Your task to perform on an android device: open the mobile data screen to see how much data has been used Image 0: 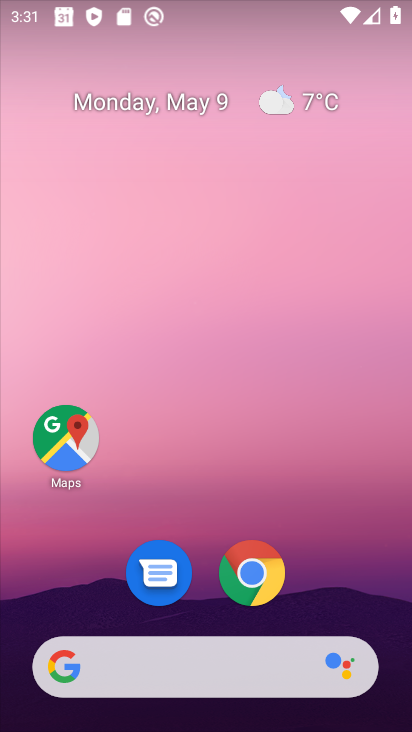
Step 0: drag from (354, 612) to (354, 4)
Your task to perform on an android device: open the mobile data screen to see how much data has been used Image 1: 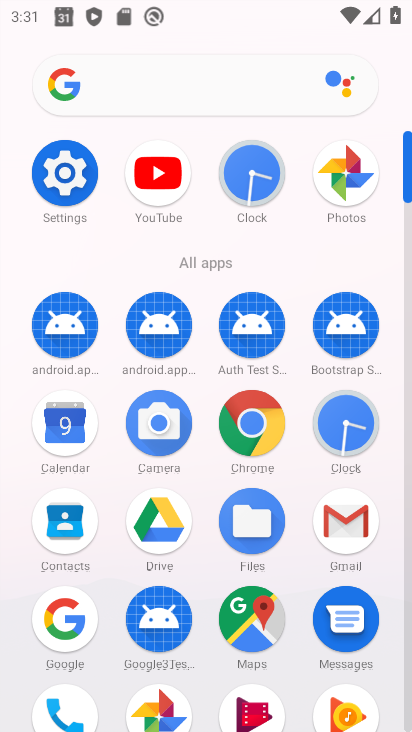
Step 1: click (59, 176)
Your task to perform on an android device: open the mobile data screen to see how much data has been used Image 2: 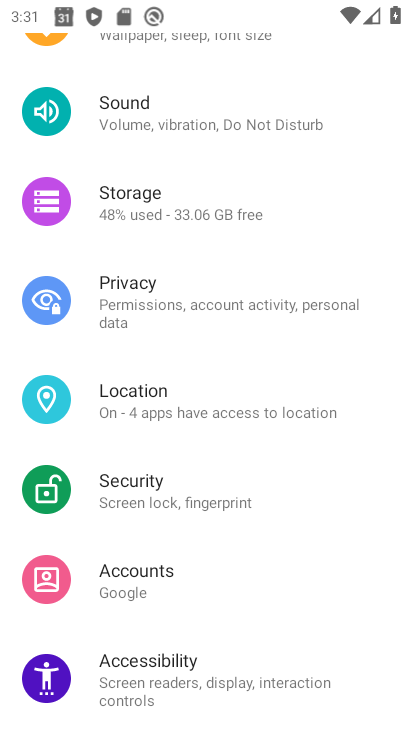
Step 2: drag from (387, 128) to (394, 629)
Your task to perform on an android device: open the mobile data screen to see how much data has been used Image 3: 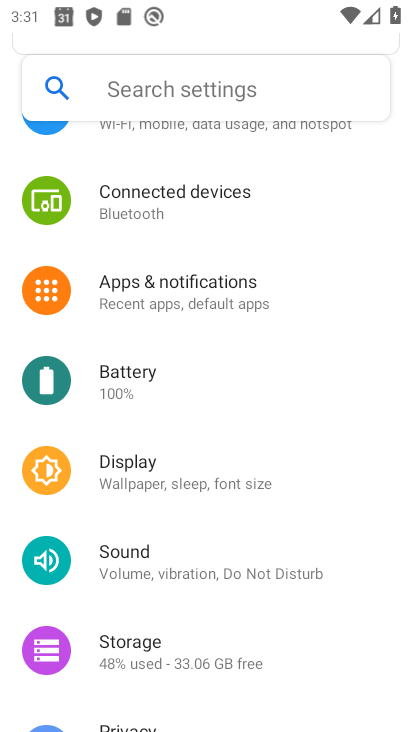
Step 3: drag from (342, 253) to (346, 583)
Your task to perform on an android device: open the mobile data screen to see how much data has been used Image 4: 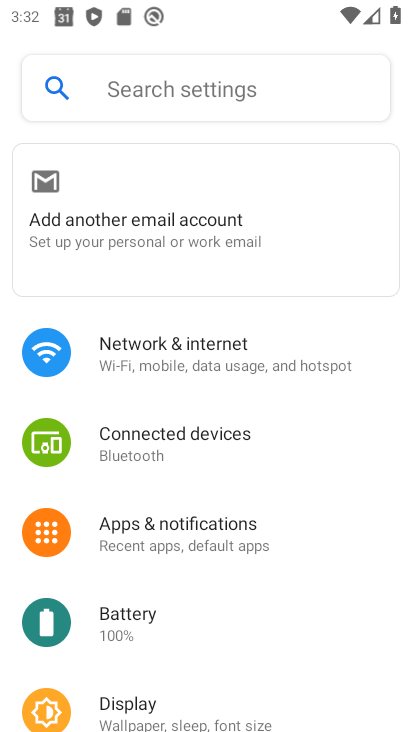
Step 4: click (166, 360)
Your task to perform on an android device: open the mobile data screen to see how much data has been used Image 5: 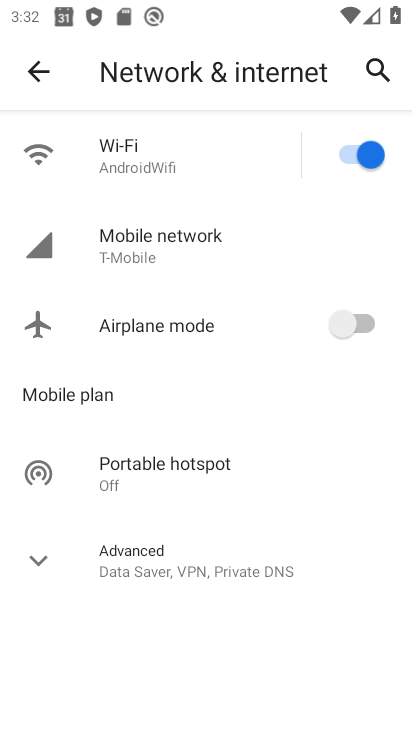
Step 5: click (131, 235)
Your task to perform on an android device: open the mobile data screen to see how much data has been used Image 6: 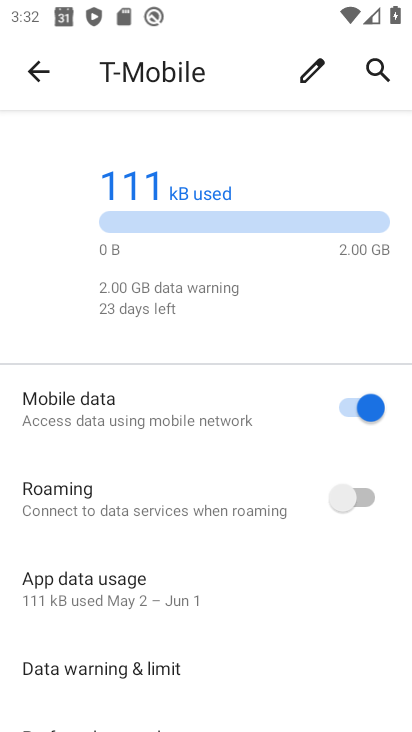
Step 6: click (121, 581)
Your task to perform on an android device: open the mobile data screen to see how much data has been used Image 7: 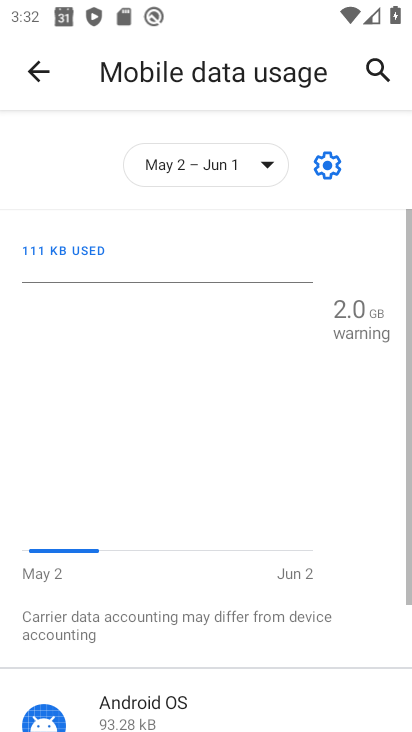
Step 7: task complete